Your task to perform on an android device: Show me popular videos on Youtube Image 0: 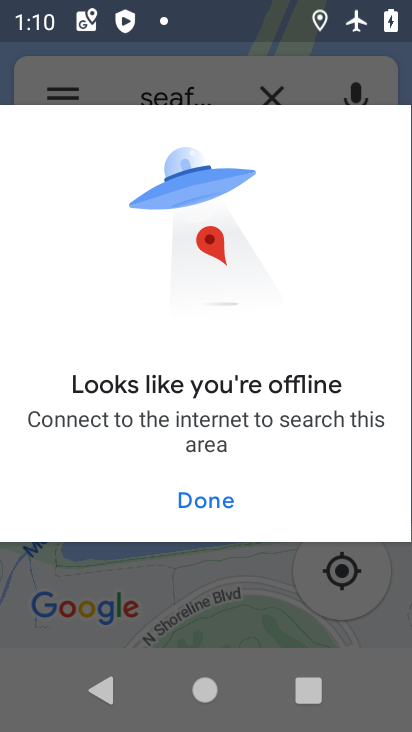
Step 0: task impossible